Your task to perform on an android device: Open Yahoo.com Image 0: 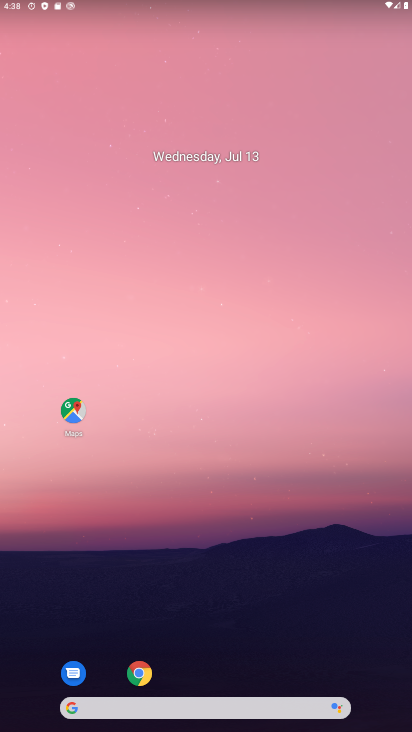
Step 0: drag from (331, 631) to (221, 134)
Your task to perform on an android device: Open Yahoo.com Image 1: 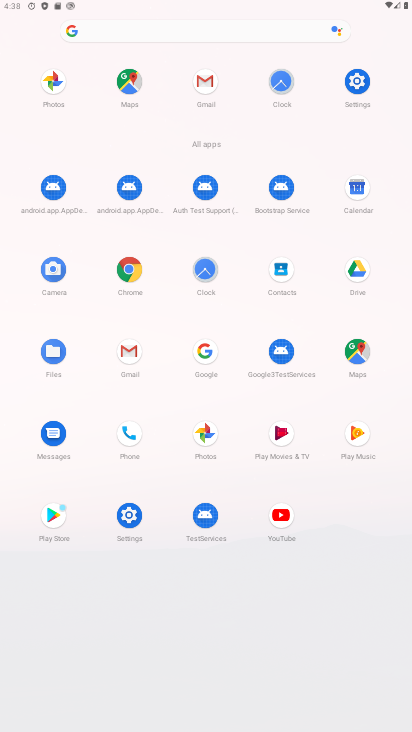
Step 1: click (359, 84)
Your task to perform on an android device: Open Yahoo.com Image 2: 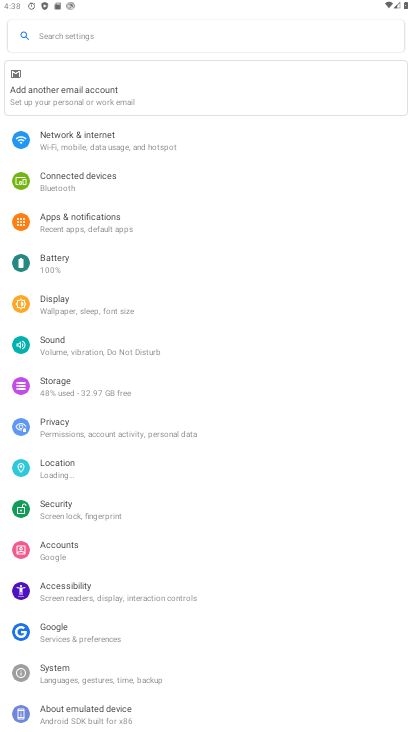
Step 2: click (121, 314)
Your task to perform on an android device: Open Yahoo.com Image 3: 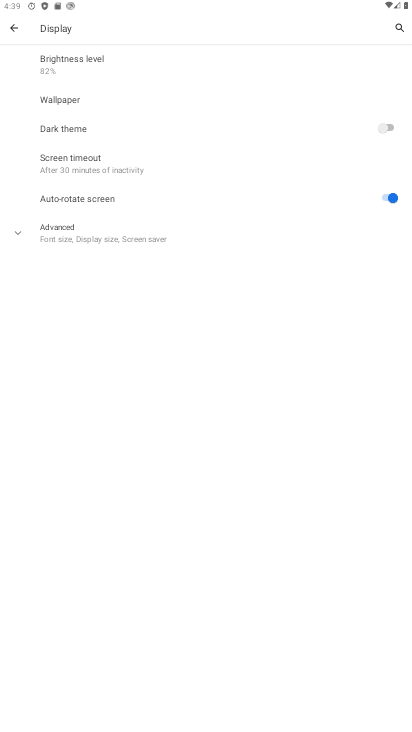
Step 3: click (129, 235)
Your task to perform on an android device: Open Yahoo.com Image 4: 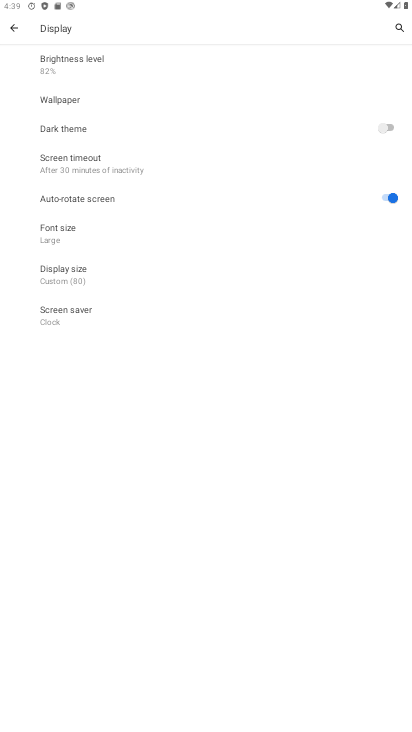
Step 4: click (135, 261)
Your task to perform on an android device: Open Yahoo.com Image 5: 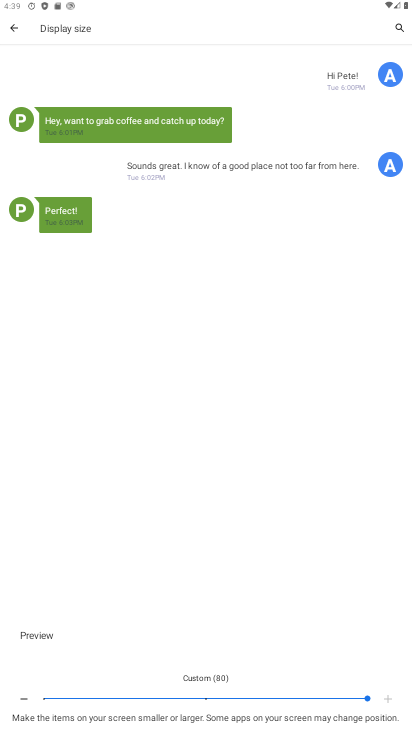
Step 5: click (209, 695)
Your task to perform on an android device: Open Yahoo.com Image 6: 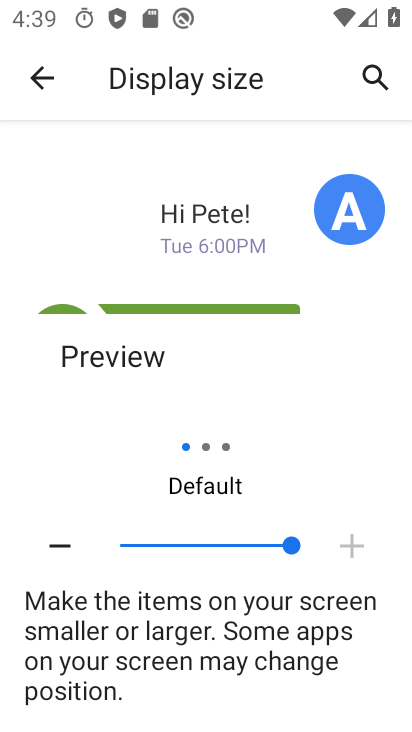
Step 6: press home button
Your task to perform on an android device: Open Yahoo.com Image 7: 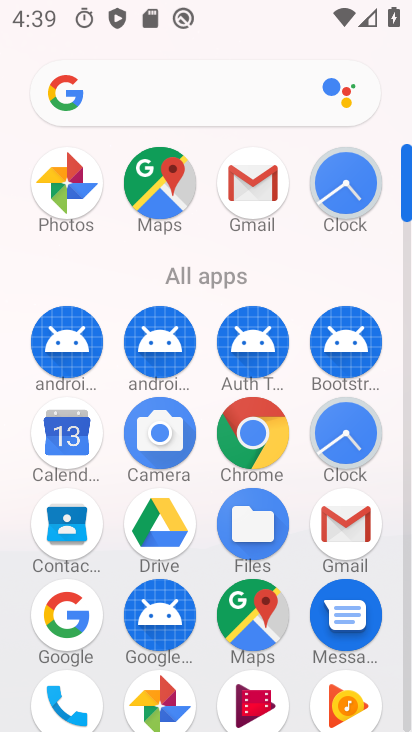
Step 7: click (267, 435)
Your task to perform on an android device: Open Yahoo.com Image 8: 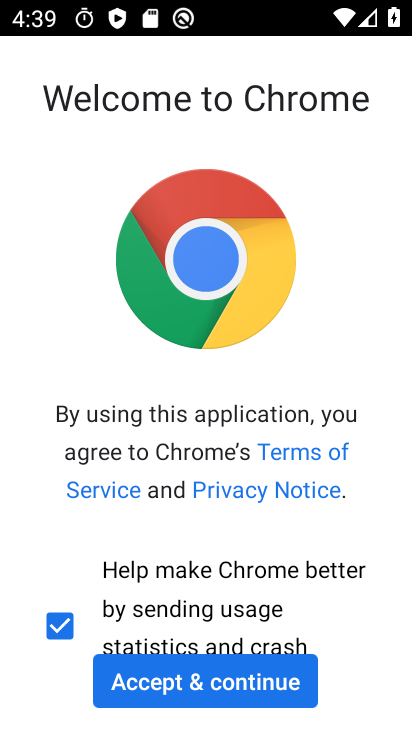
Step 8: click (294, 677)
Your task to perform on an android device: Open Yahoo.com Image 9: 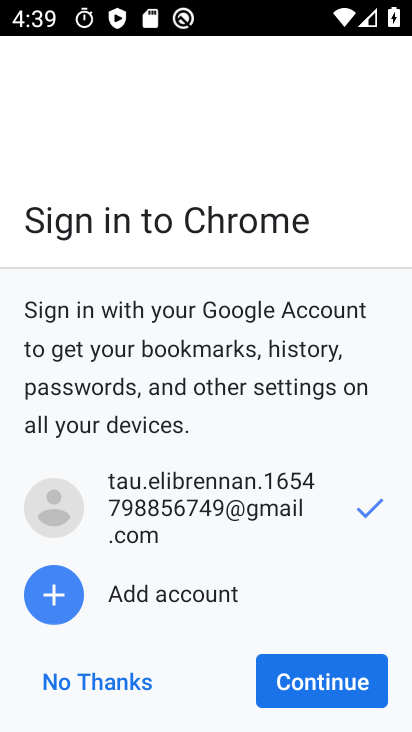
Step 9: click (302, 688)
Your task to perform on an android device: Open Yahoo.com Image 10: 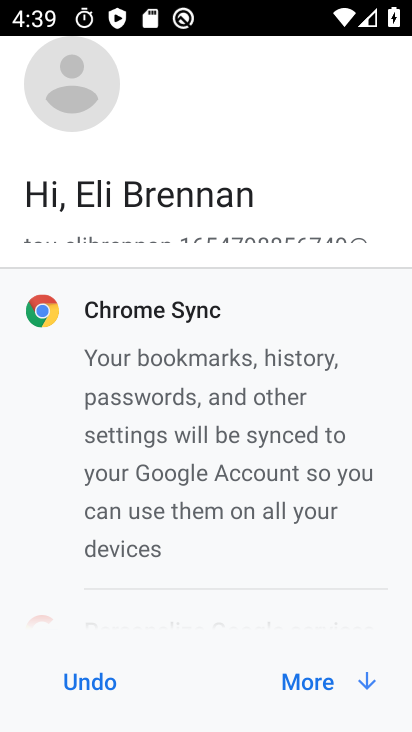
Step 10: click (302, 688)
Your task to perform on an android device: Open Yahoo.com Image 11: 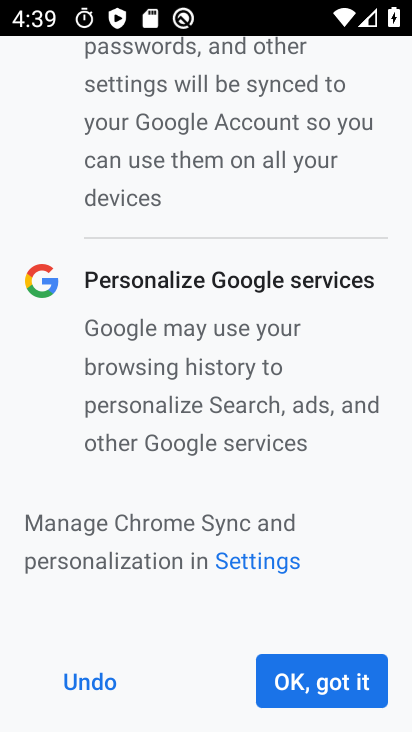
Step 11: click (310, 687)
Your task to perform on an android device: Open Yahoo.com Image 12: 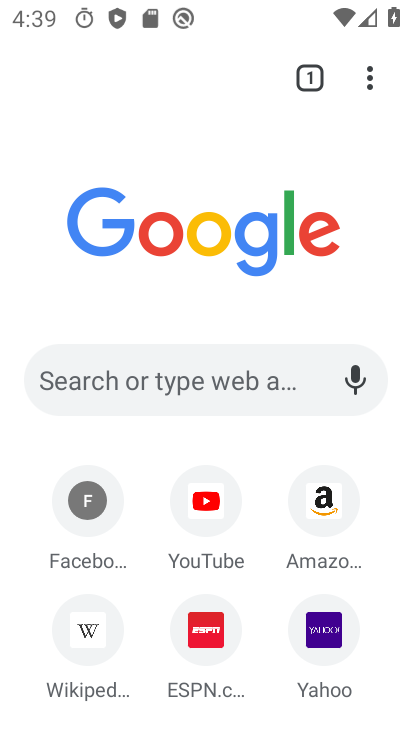
Step 12: click (337, 640)
Your task to perform on an android device: Open Yahoo.com Image 13: 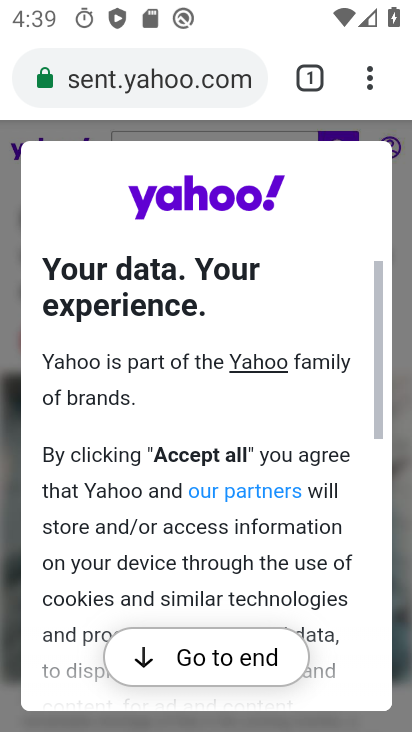
Step 13: task complete